Your task to perform on an android device: What's on my calendar today? Image 0: 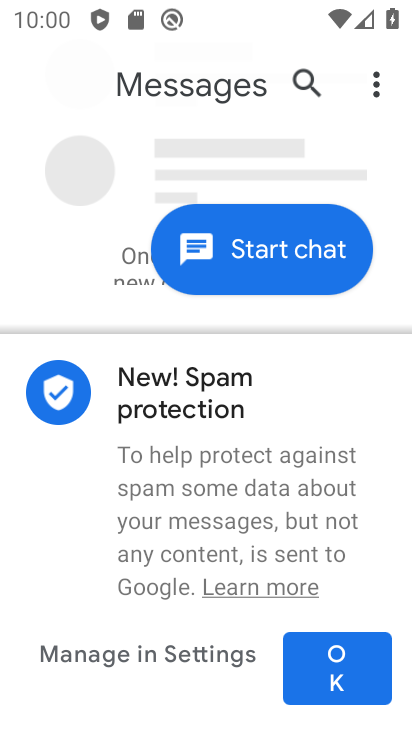
Step 0: press back button
Your task to perform on an android device: What's on my calendar today? Image 1: 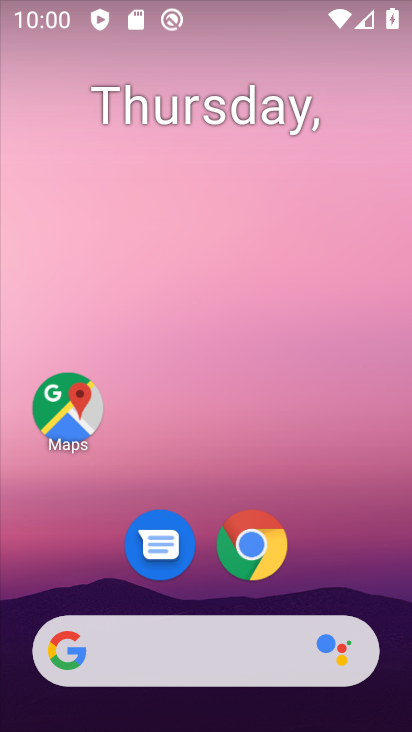
Step 1: drag from (340, 558) to (209, 80)
Your task to perform on an android device: What's on my calendar today? Image 2: 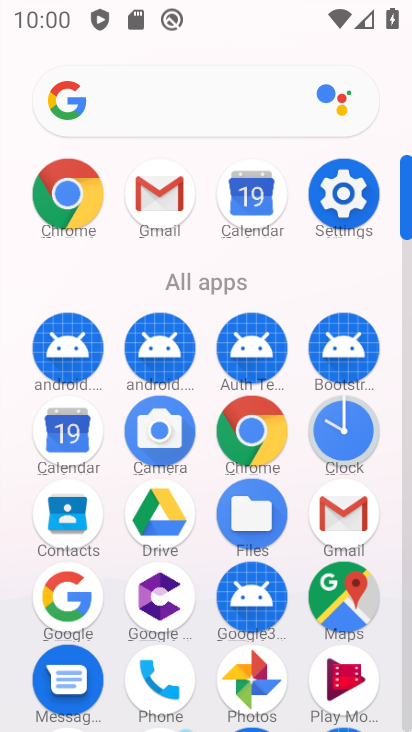
Step 2: click (68, 436)
Your task to perform on an android device: What's on my calendar today? Image 3: 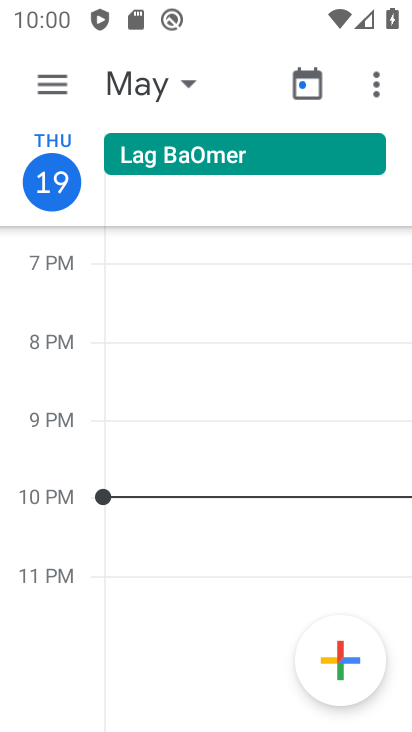
Step 3: click (48, 80)
Your task to perform on an android device: What's on my calendar today? Image 4: 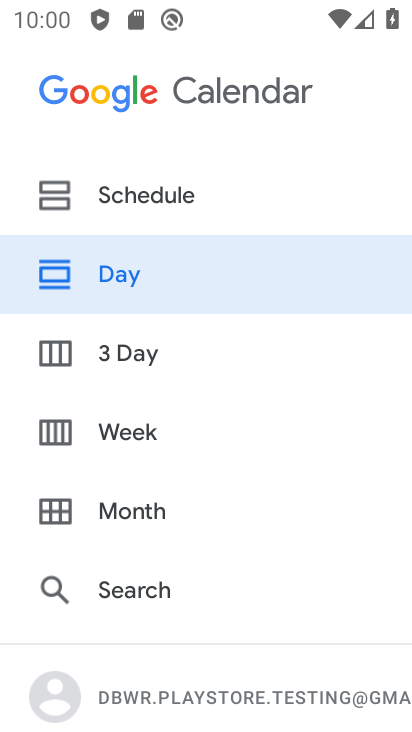
Step 4: click (114, 183)
Your task to perform on an android device: What's on my calendar today? Image 5: 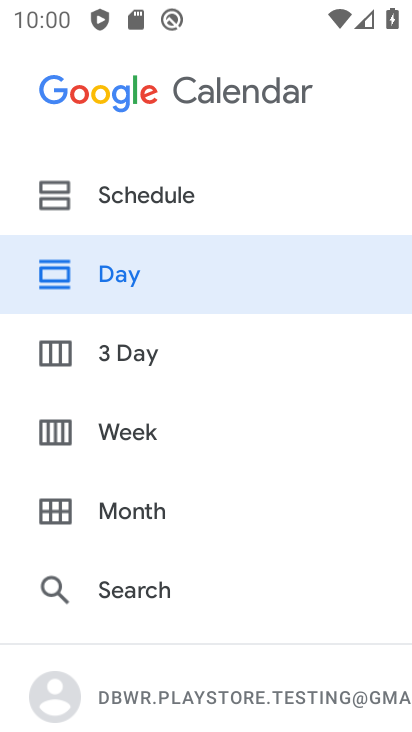
Step 5: click (118, 187)
Your task to perform on an android device: What's on my calendar today? Image 6: 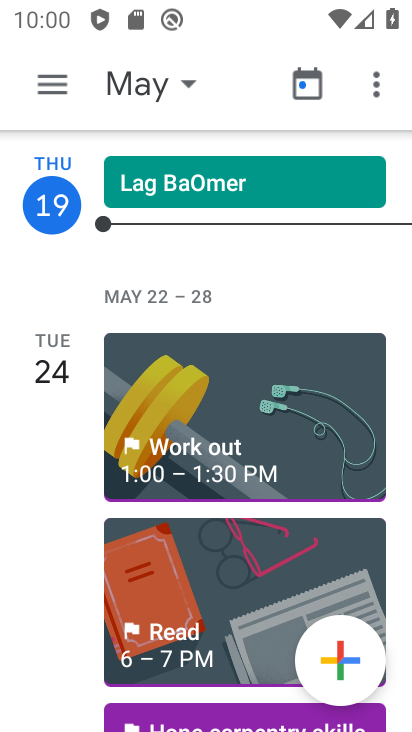
Step 6: click (210, 184)
Your task to perform on an android device: What's on my calendar today? Image 7: 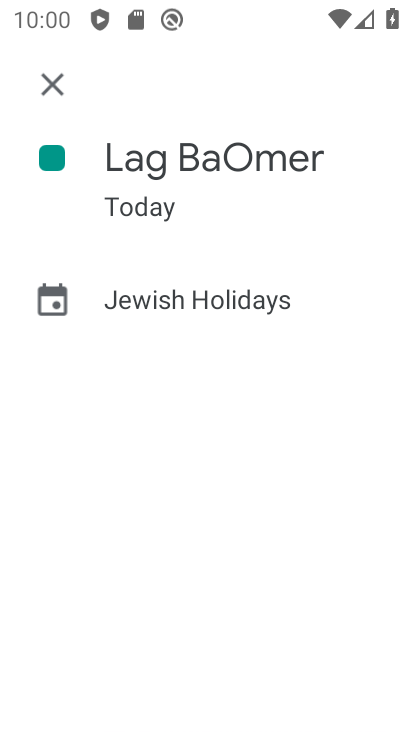
Step 7: task complete